Your task to perform on an android device: turn on javascript in the chrome app Image 0: 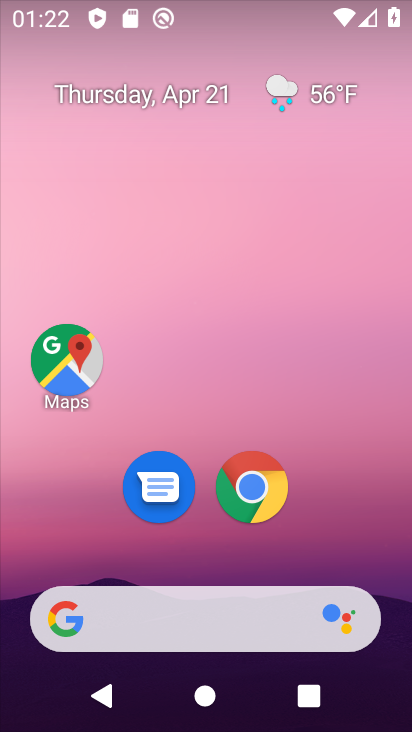
Step 0: click (242, 482)
Your task to perform on an android device: turn on javascript in the chrome app Image 1: 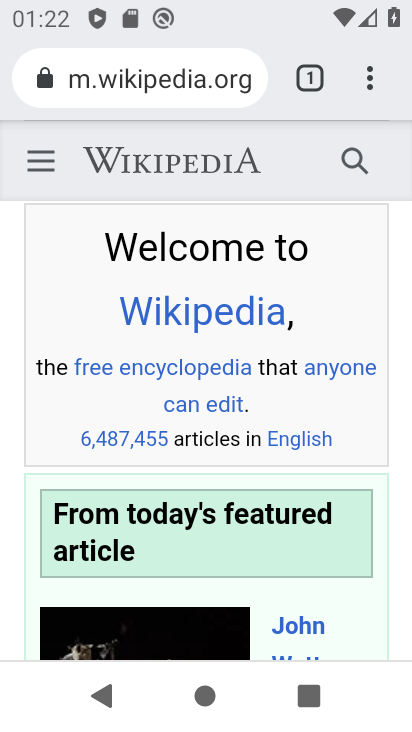
Step 1: click (357, 80)
Your task to perform on an android device: turn on javascript in the chrome app Image 2: 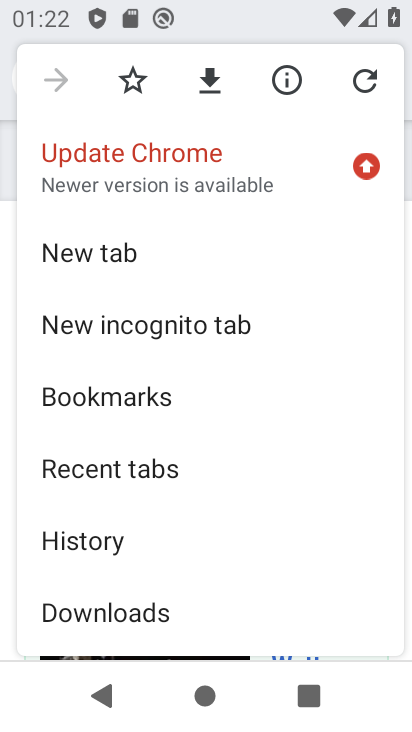
Step 2: drag from (158, 586) to (179, 467)
Your task to perform on an android device: turn on javascript in the chrome app Image 3: 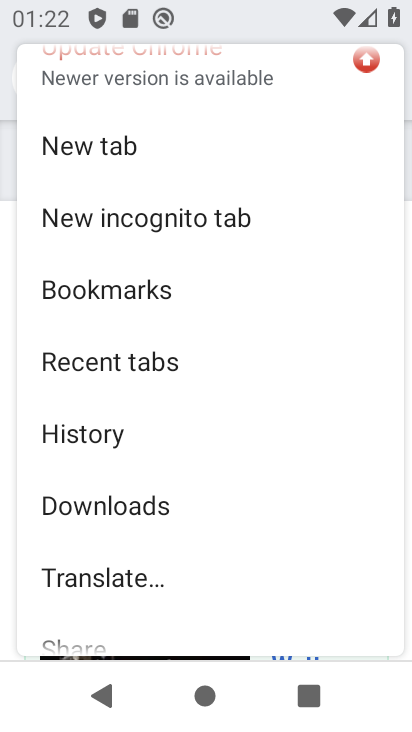
Step 3: drag from (187, 591) to (186, 449)
Your task to perform on an android device: turn on javascript in the chrome app Image 4: 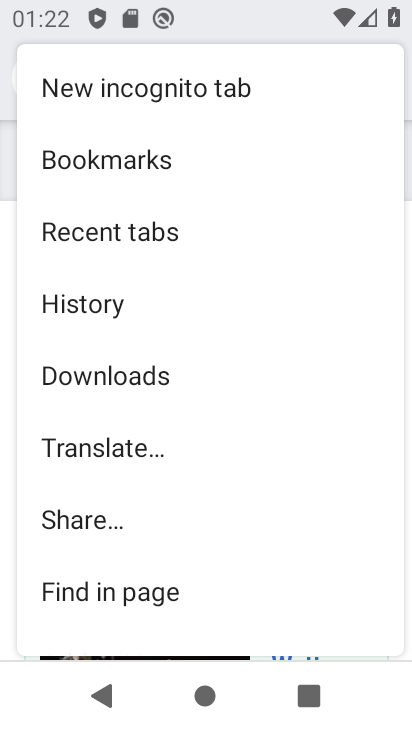
Step 4: drag from (234, 578) to (233, 457)
Your task to perform on an android device: turn on javascript in the chrome app Image 5: 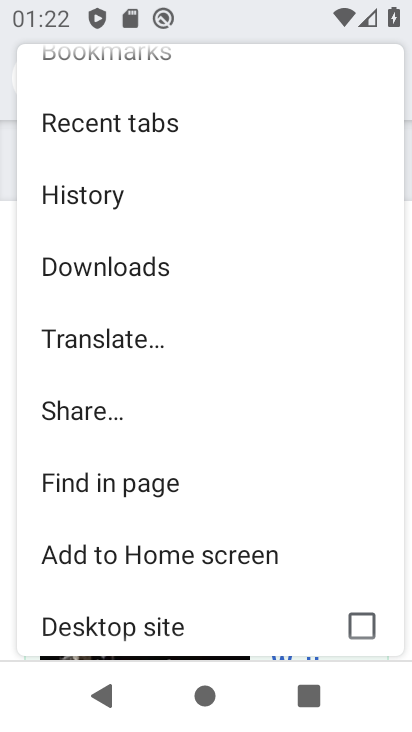
Step 5: drag from (193, 569) to (218, 434)
Your task to perform on an android device: turn on javascript in the chrome app Image 6: 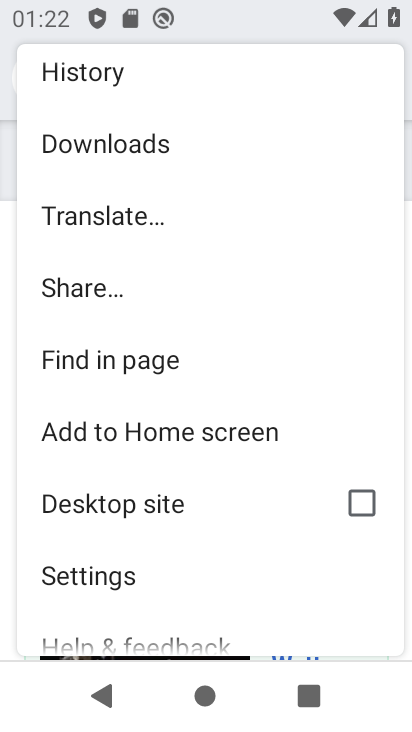
Step 6: click (197, 566)
Your task to perform on an android device: turn on javascript in the chrome app Image 7: 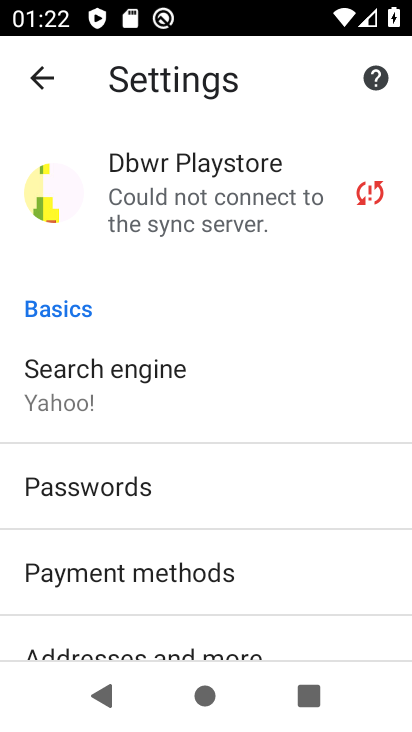
Step 7: drag from (201, 600) to (200, 494)
Your task to perform on an android device: turn on javascript in the chrome app Image 8: 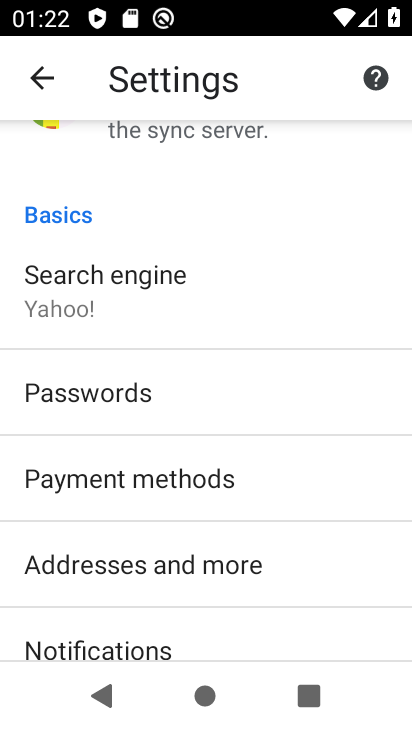
Step 8: drag from (195, 584) to (151, 441)
Your task to perform on an android device: turn on javascript in the chrome app Image 9: 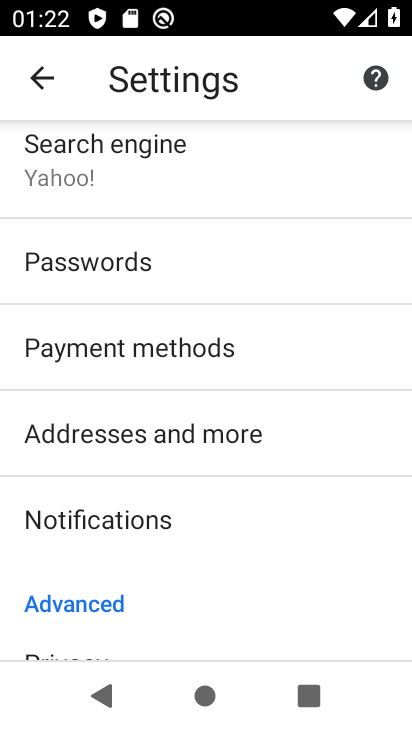
Step 9: drag from (210, 581) to (244, 446)
Your task to perform on an android device: turn on javascript in the chrome app Image 10: 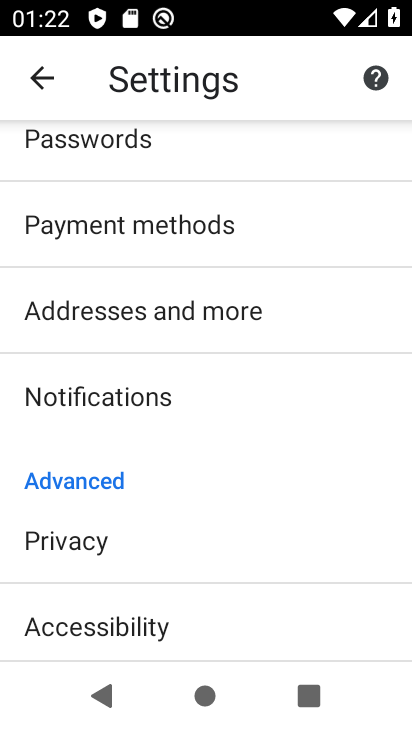
Step 10: drag from (221, 504) to (217, 392)
Your task to perform on an android device: turn on javascript in the chrome app Image 11: 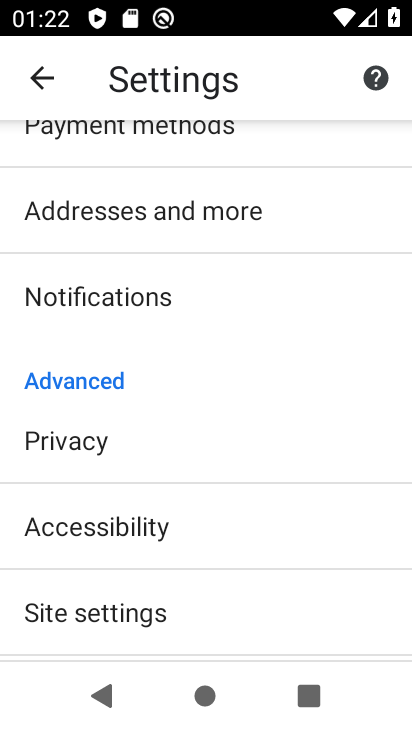
Step 11: drag from (216, 523) to (220, 418)
Your task to perform on an android device: turn on javascript in the chrome app Image 12: 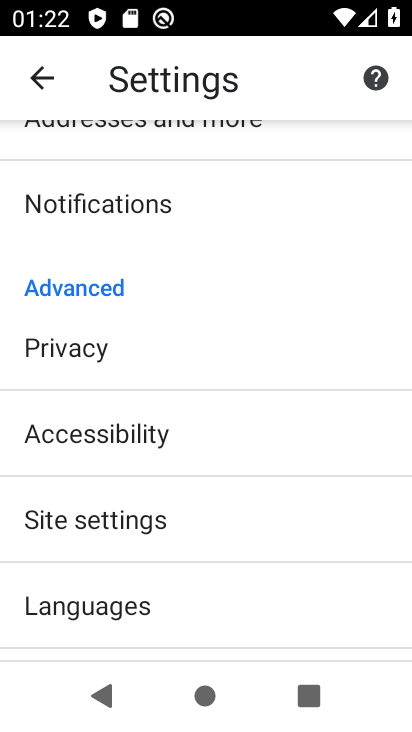
Step 12: click (173, 530)
Your task to perform on an android device: turn on javascript in the chrome app Image 13: 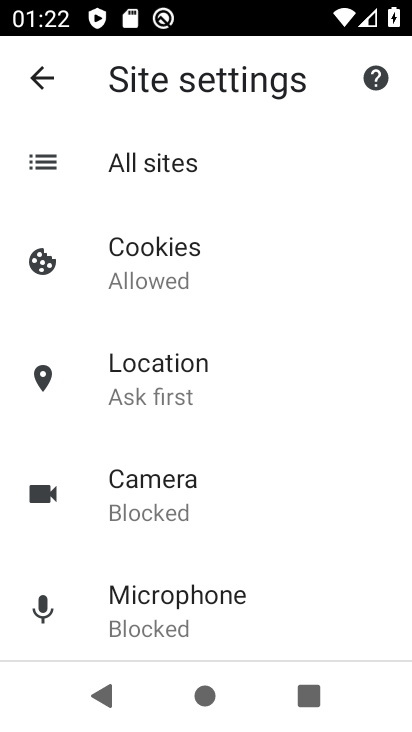
Step 13: drag from (173, 530) to (166, 451)
Your task to perform on an android device: turn on javascript in the chrome app Image 14: 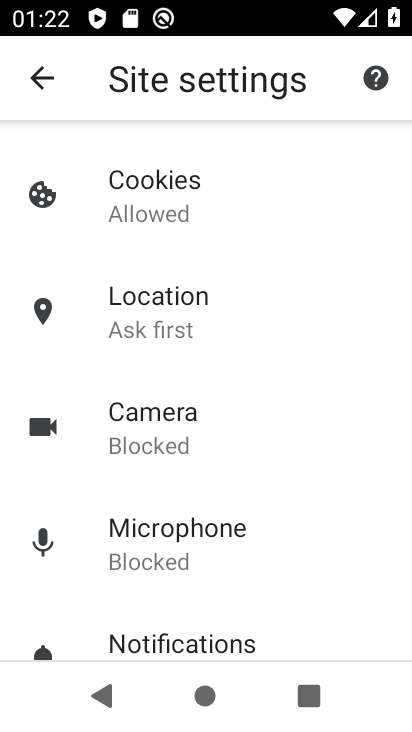
Step 14: drag from (194, 543) to (221, 458)
Your task to perform on an android device: turn on javascript in the chrome app Image 15: 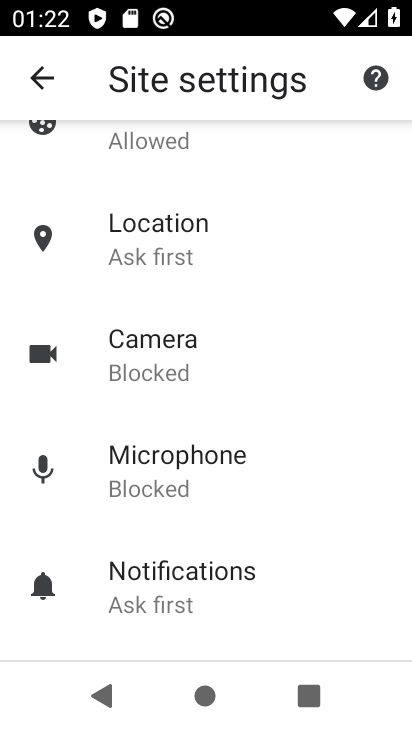
Step 15: drag from (244, 556) to (262, 455)
Your task to perform on an android device: turn on javascript in the chrome app Image 16: 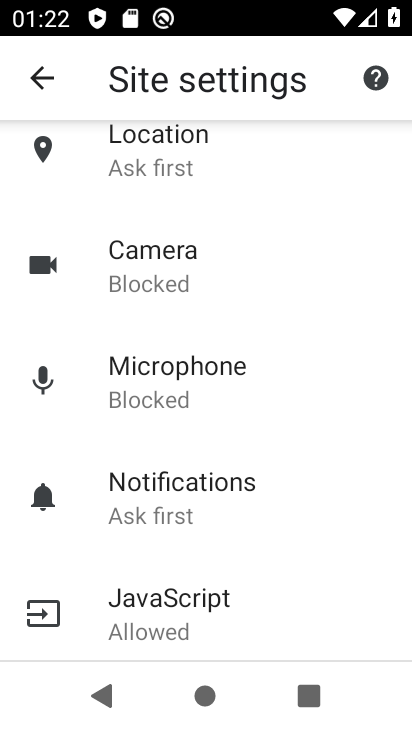
Step 16: click (238, 614)
Your task to perform on an android device: turn on javascript in the chrome app Image 17: 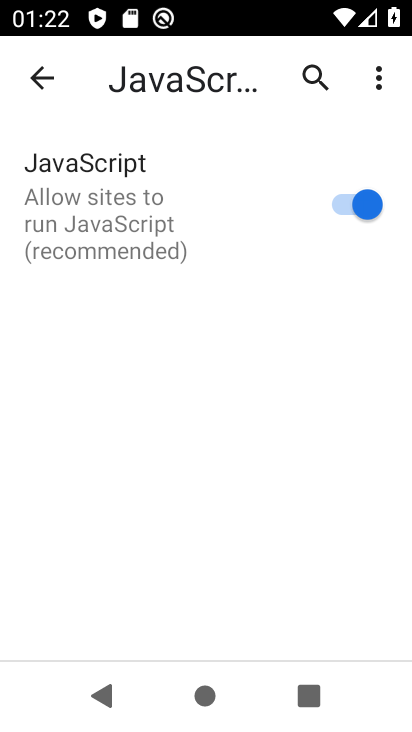
Step 17: task complete